Your task to perform on an android device: Go to Yahoo.com Image 0: 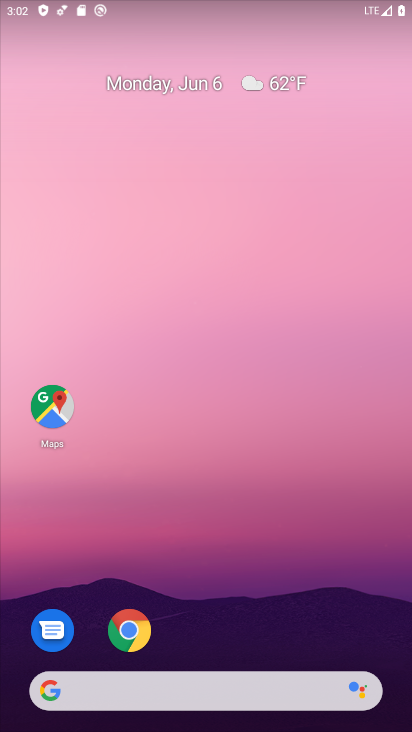
Step 0: click (108, 634)
Your task to perform on an android device: Go to Yahoo.com Image 1: 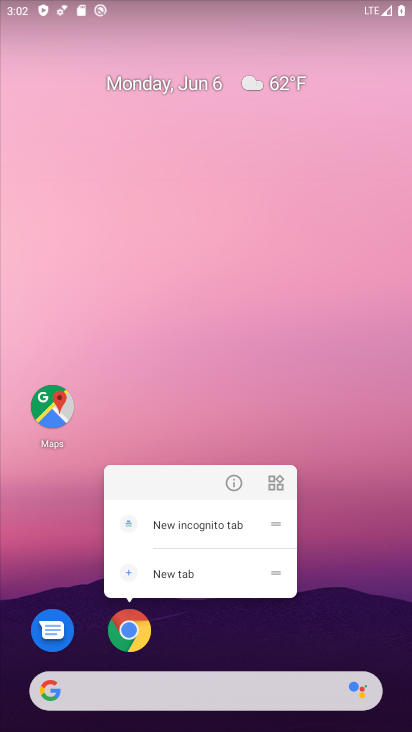
Step 1: click (126, 634)
Your task to perform on an android device: Go to Yahoo.com Image 2: 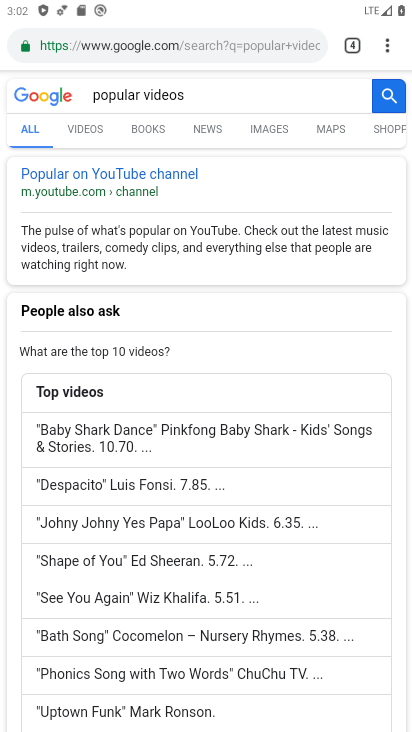
Step 2: click (125, 36)
Your task to perform on an android device: Go to Yahoo.com Image 3: 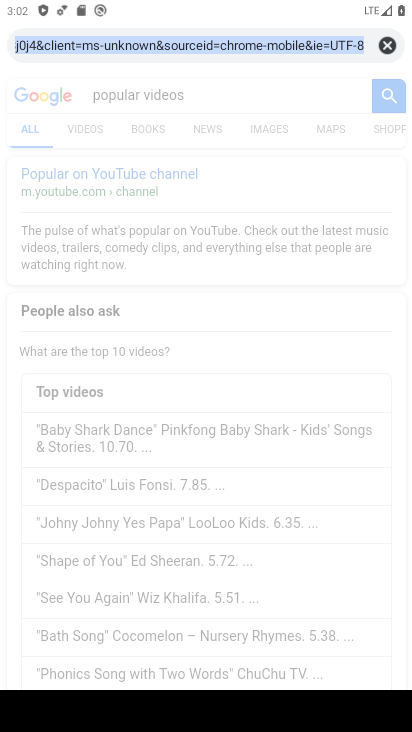
Step 3: click (379, 52)
Your task to perform on an android device: Go to Yahoo.com Image 4: 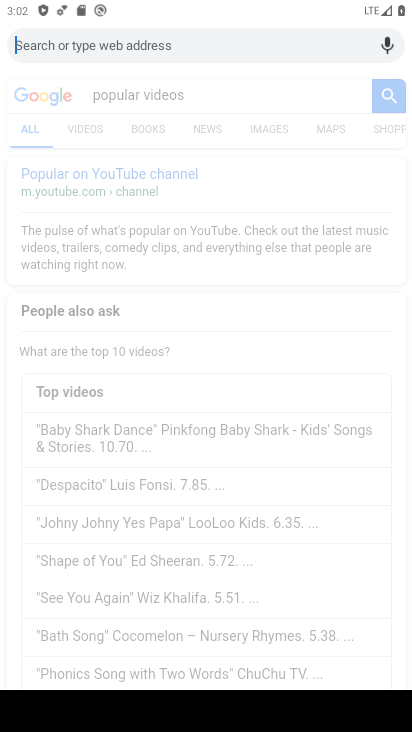
Step 4: type " Yahoo.com"
Your task to perform on an android device: Go to Yahoo.com Image 5: 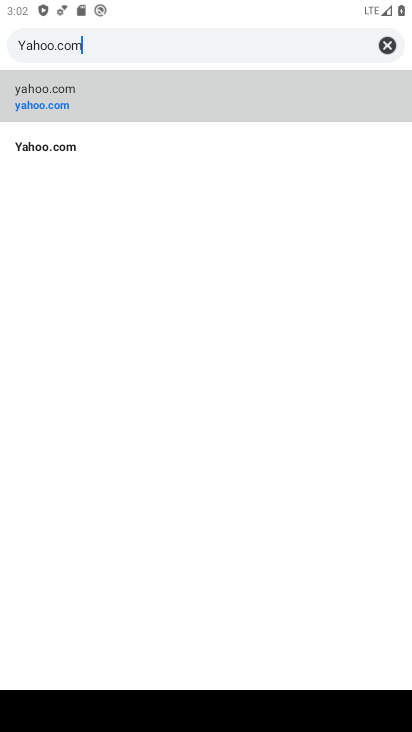
Step 5: type ""
Your task to perform on an android device: Go to Yahoo.com Image 6: 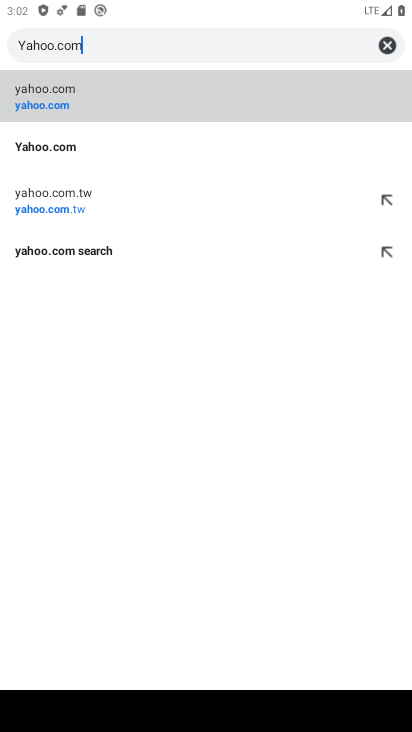
Step 6: click (120, 89)
Your task to perform on an android device: Go to Yahoo.com Image 7: 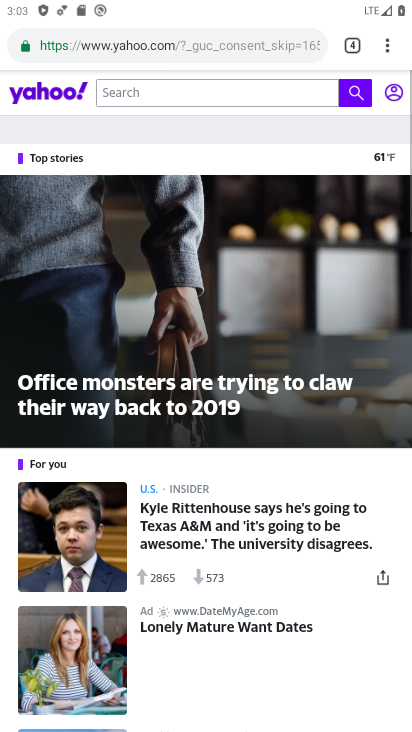
Step 7: task complete